Your task to perform on an android device: Clear the cart on walmart.com. Add "bose quietcomfort 35" to the cart on walmart.com, then select checkout. Image 0: 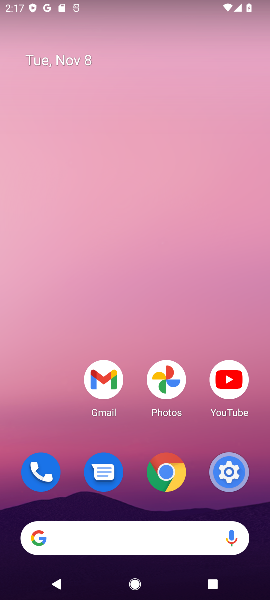
Step 0: click (133, 536)
Your task to perform on an android device: Clear the cart on walmart.com. Add "bose quietcomfort 35" to the cart on walmart.com, then select checkout. Image 1: 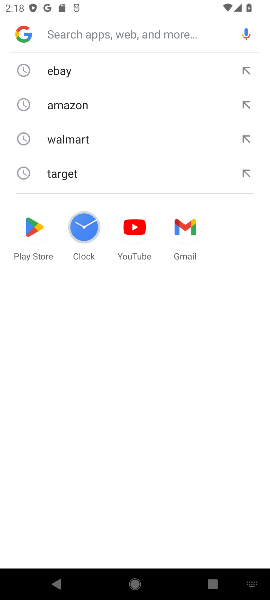
Step 1: task complete